Your task to perform on an android device: set an alarm Image 0: 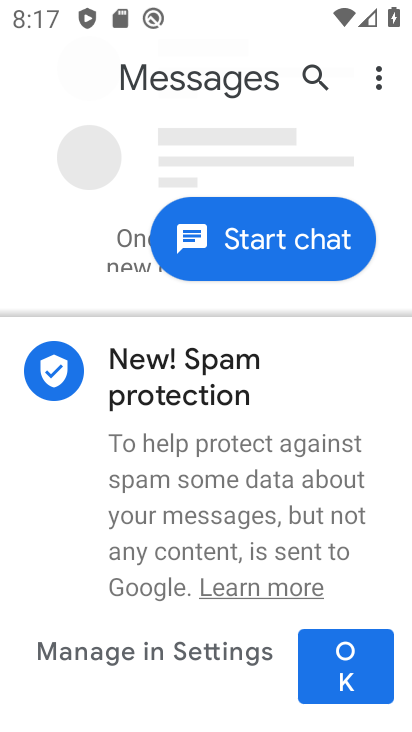
Step 0: press home button
Your task to perform on an android device: set an alarm Image 1: 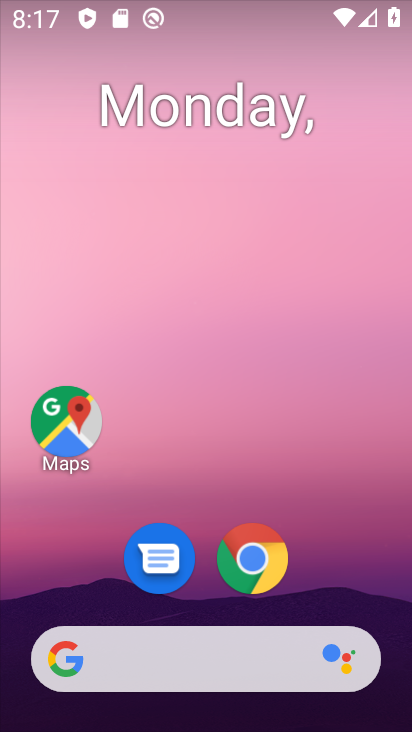
Step 1: drag from (348, 525) to (371, 77)
Your task to perform on an android device: set an alarm Image 2: 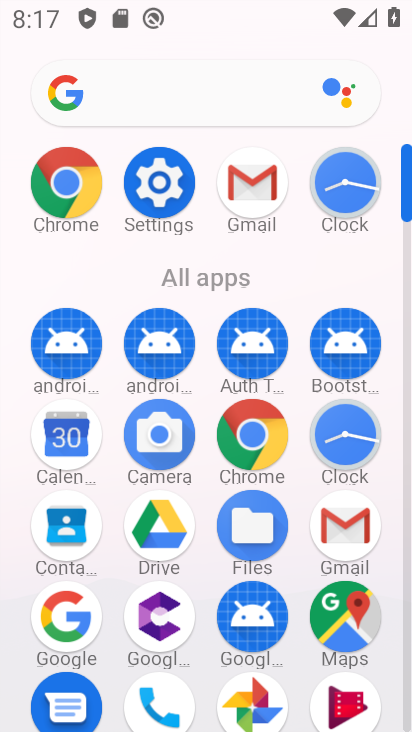
Step 2: click (358, 169)
Your task to perform on an android device: set an alarm Image 3: 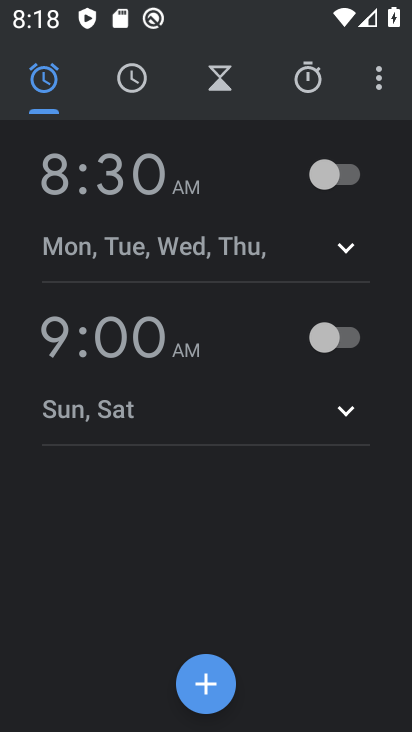
Step 3: click (214, 681)
Your task to perform on an android device: set an alarm Image 4: 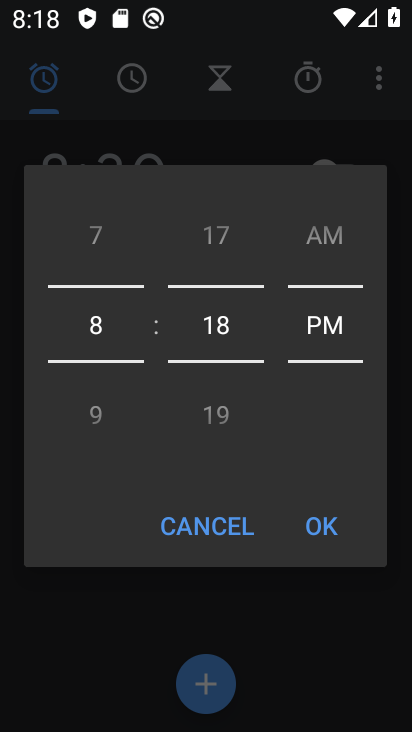
Step 4: click (334, 543)
Your task to perform on an android device: set an alarm Image 5: 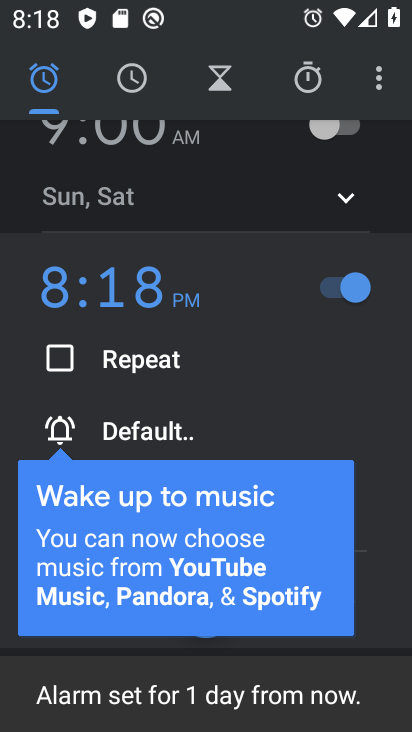
Step 5: task complete